Your task to perform on an android device: install app "ZOOM Cloud Meetings" Image 0: 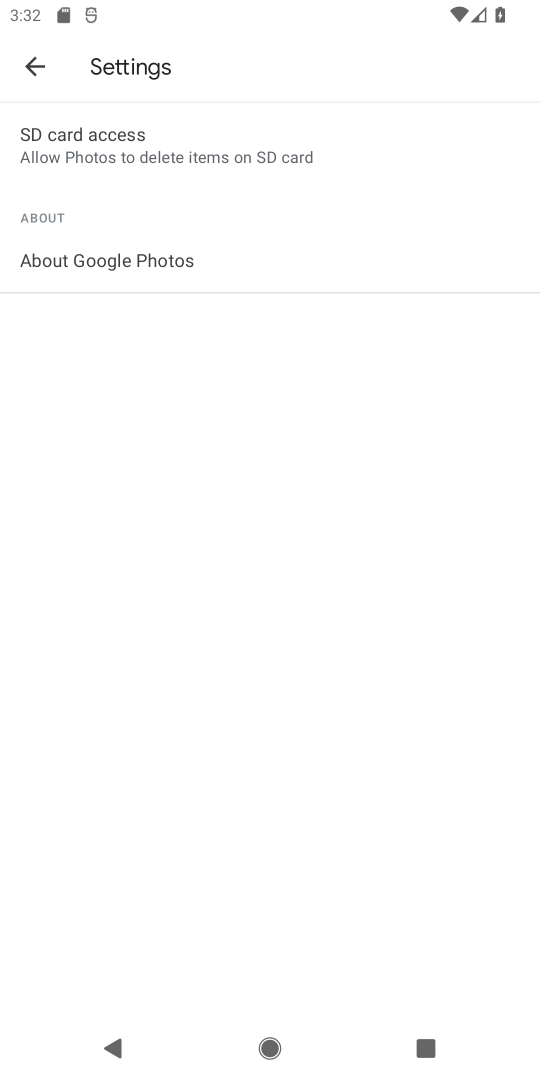
Step 0: press home button
Your task to perform on an android device: install app "ZOOM Cloud Meetings" Image 1: 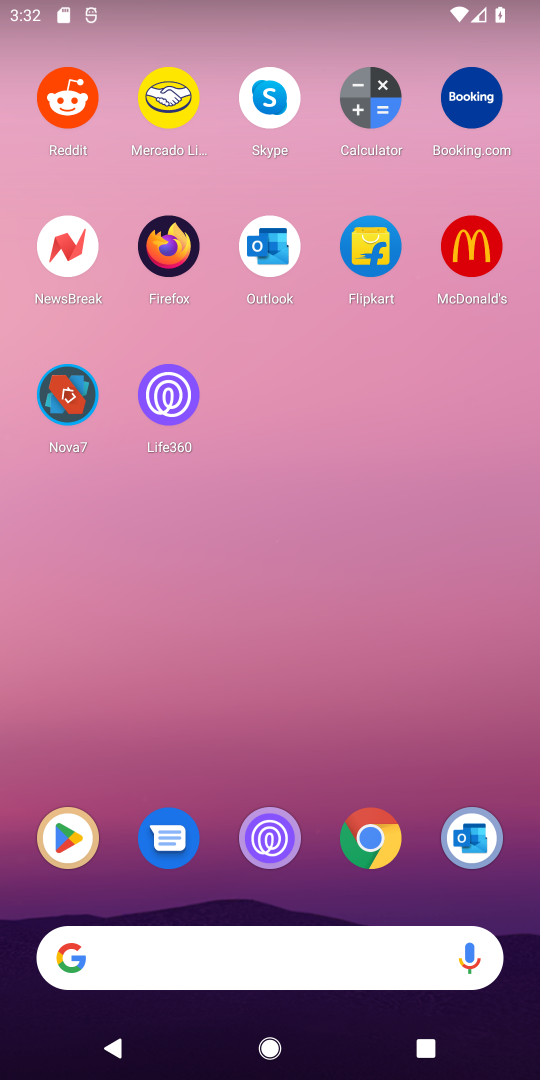
Step 1: click (63, 847)
Your task to perform on an android device: install app "ZOOM Cloud Meetings" Image 2: 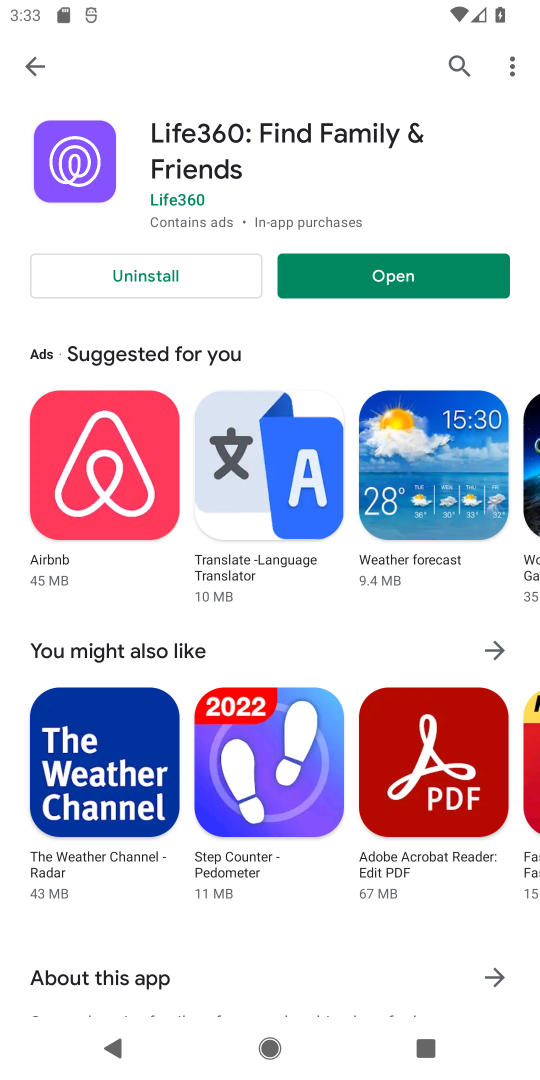
Step 2: click (456, 66)
Your task to perform on an android device: install app "ZOOM Cloud Meetings" Image 3: 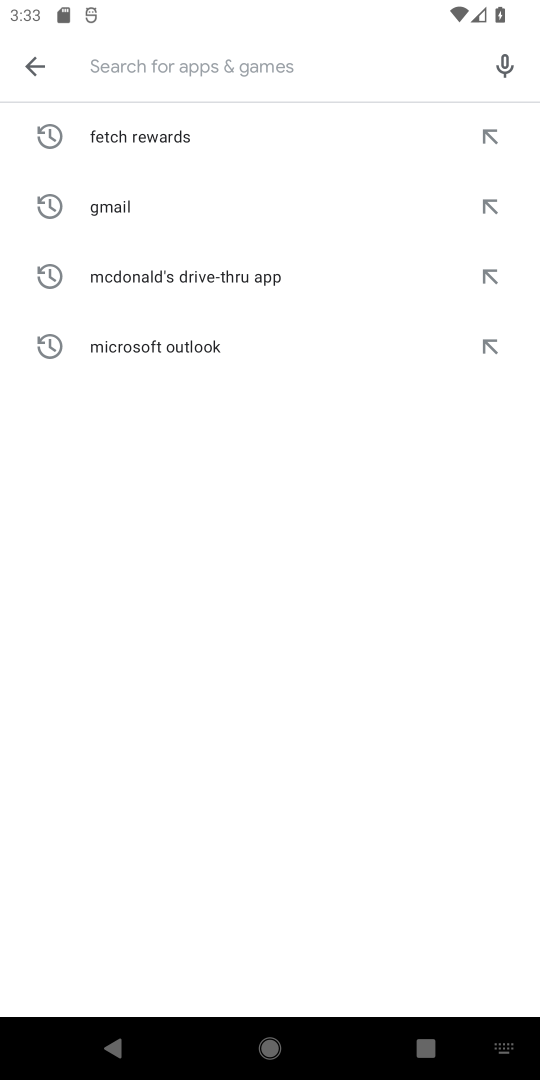
Step 3: type "ZOOM Cloud Meetings"
Your task to perform on an android device: install app "ZOOM Cloud Meetings" Image 4: 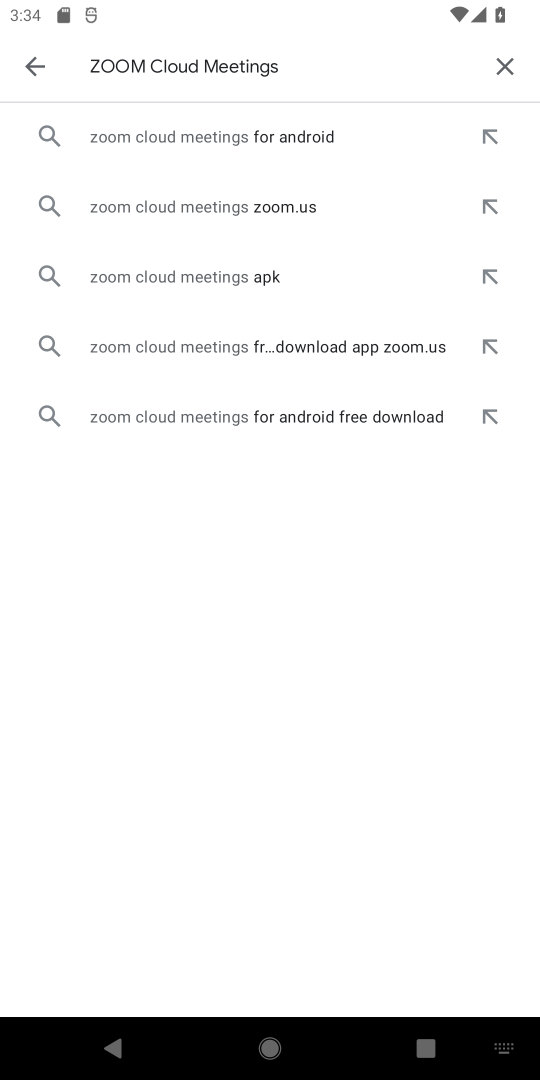
Step 4: click (175, 285)
Your task to perform on an android device: install app "ZOOM Cloud Meetings" Image 5: 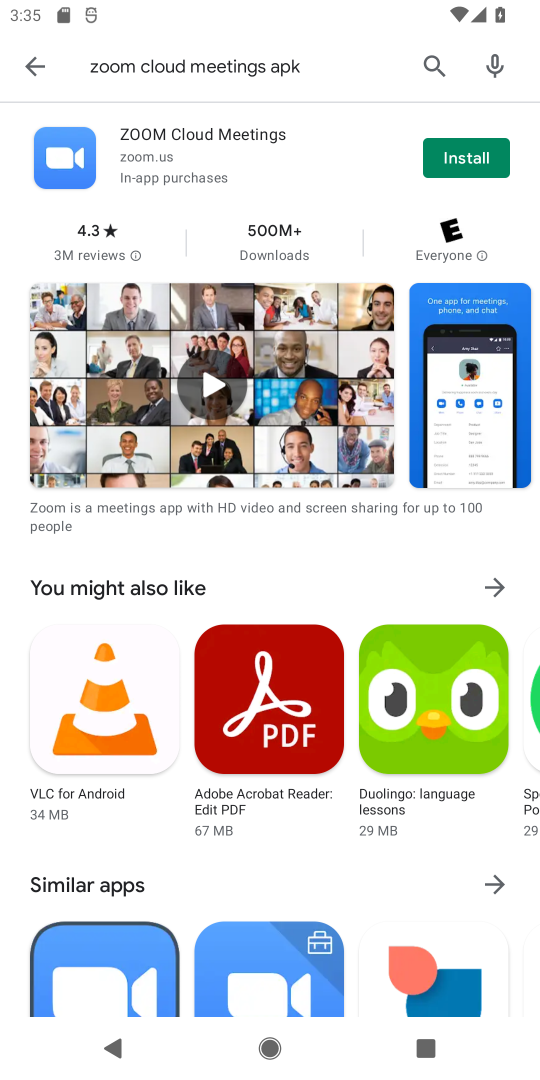
Step 5: click (456, 149)
Your task to perform on an android device: install app "ZOOM Cloud Meetings" Image 6: 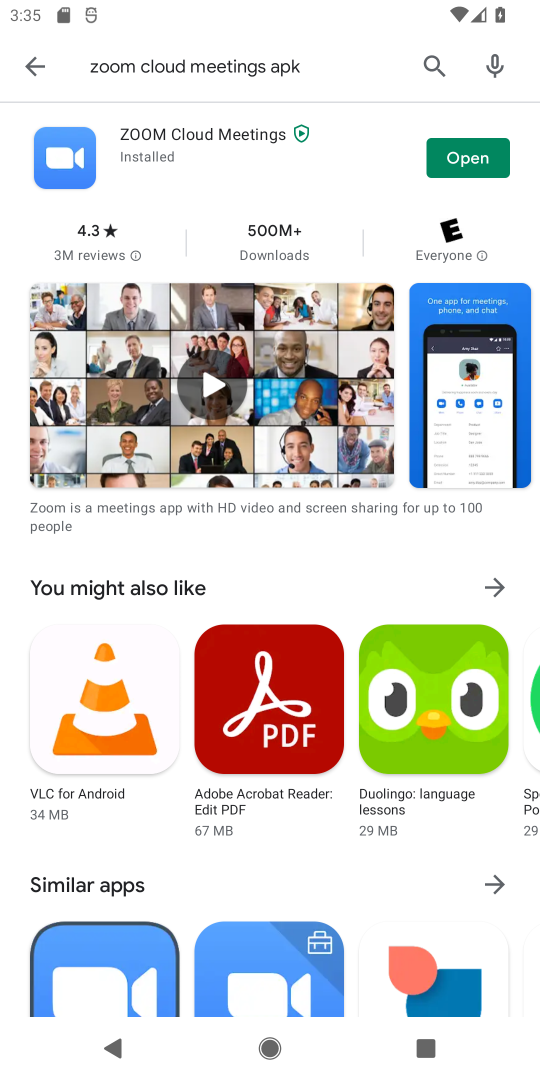
Step 6: task complete